Your task to perform on an android device: Open Google Chrome and click the shortcut for Amazon.com Image 0: 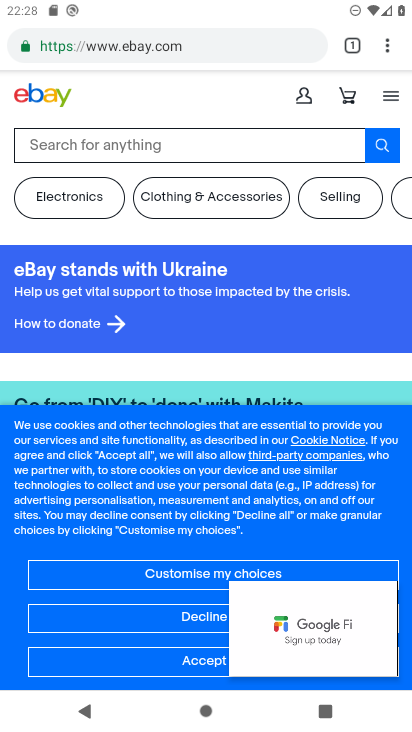
Step 0: press back button
Your task to perform on an android device: Open Google Chrome and click the shortcut for Amazon.com Image 1: 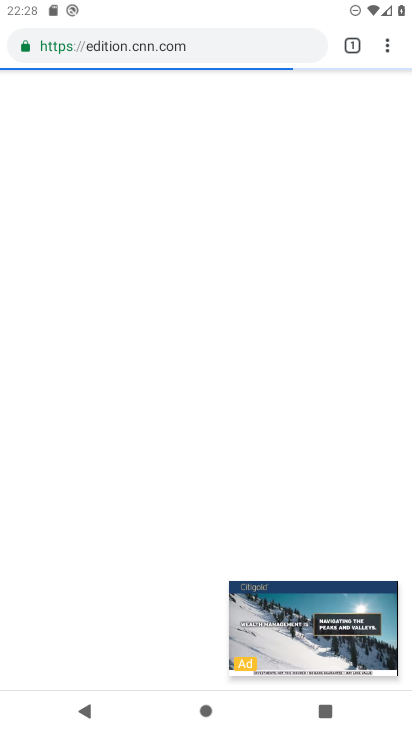
Step 1: task complete